Your task to perform on an android device: Search for Italian restaurants on Maps Image 0: 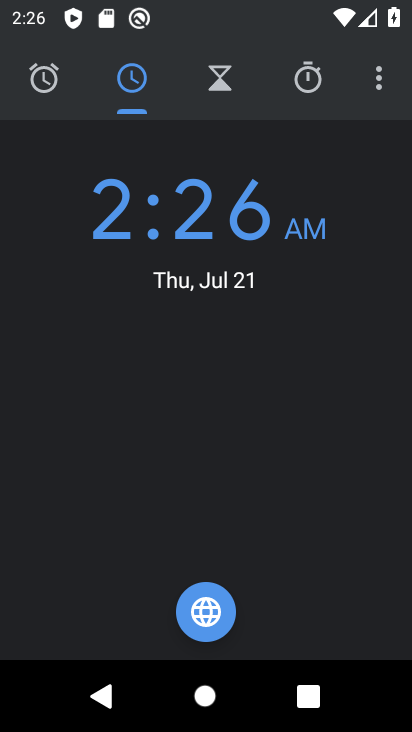
Step 0: press back button
Your task to perform on an android device: Search for Italian restaurants on Maps Image 1: 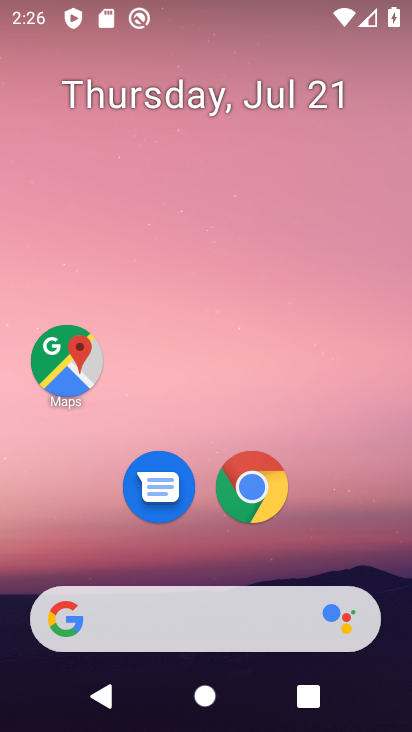
Step 1: click (76, 358)
Your task to perform on an android device: Search for Italian restaurants on Maps Image 2: 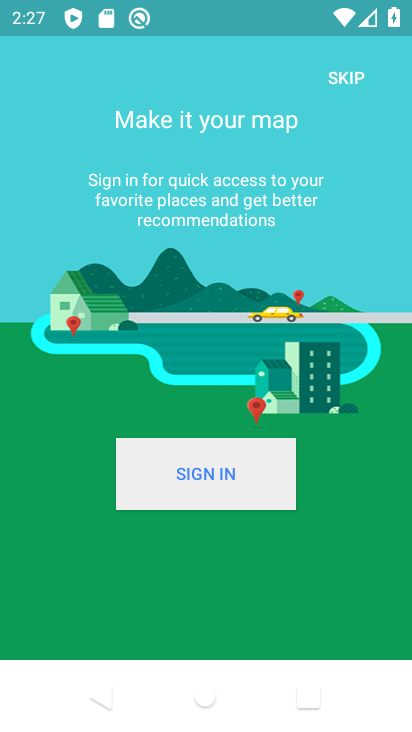
Step 2: click (344, 77)
Your task to perform on an android device: Search for Italian restaurants on Maps Image 3: 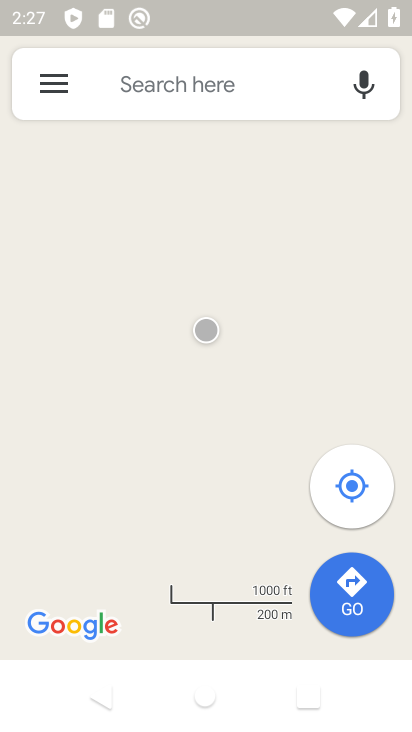
Step 3: click (204, 98)
Your task to perform on an android device: Search for Italian restaurants on Maps Image 4: 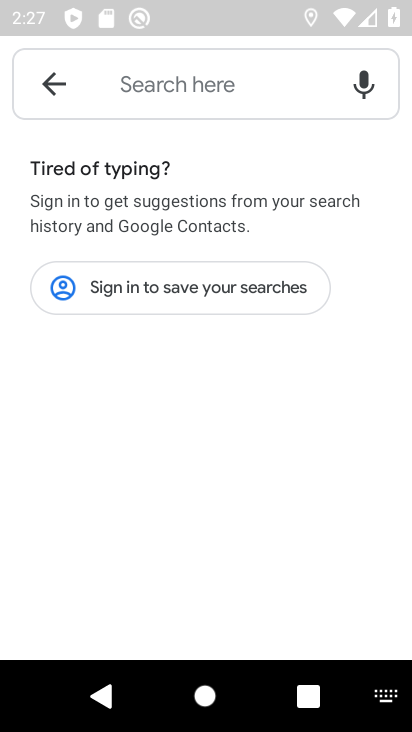
Step 4: type "italian restaurants"
Your task to perform on an android device: Search for Italian restaurants on Maps Image 5: 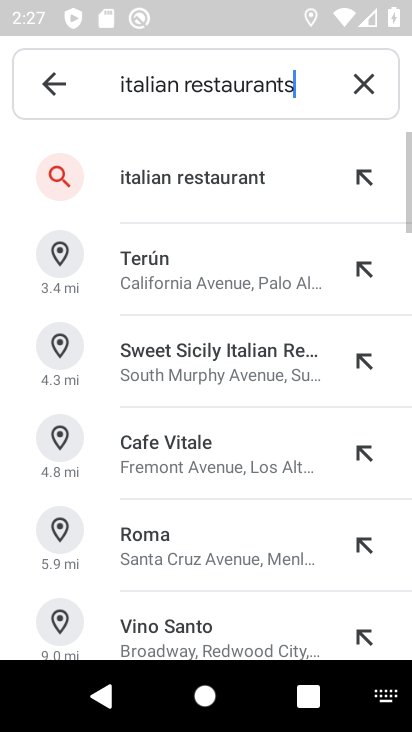
Step 5: click (159, 169)
Your task to perform on an android device: Search for Italian restaurants on Maps Image 6: 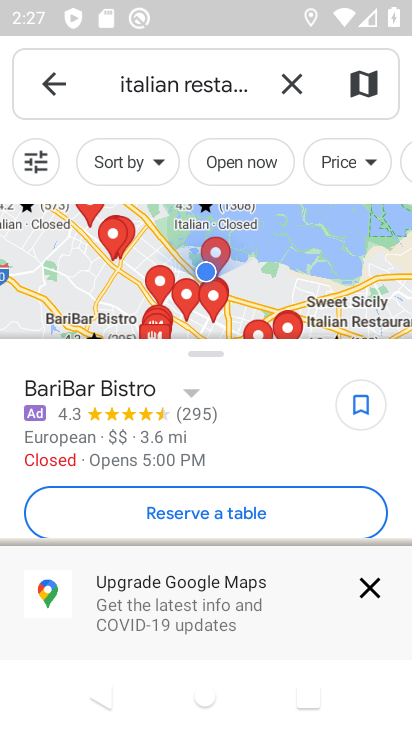
Step 6: task complete